Your task to perform on an android device: turn on priority inbox in the gmail app Image 0: 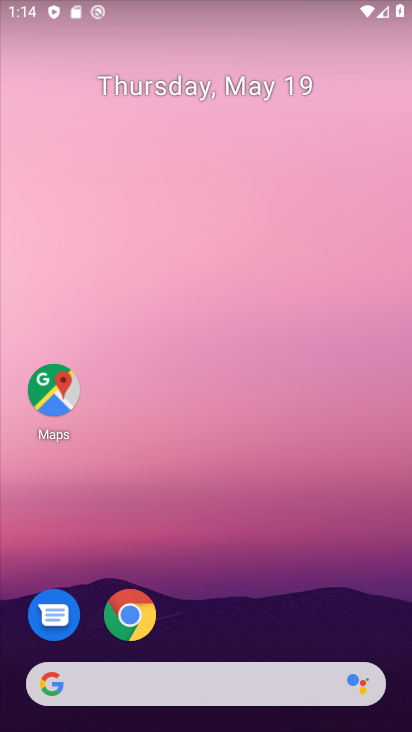
Step 0: drag from (287, 562) to (303, 60)
Your task to perform on an android device: turn on priority inbox in the gmail app Image 1: 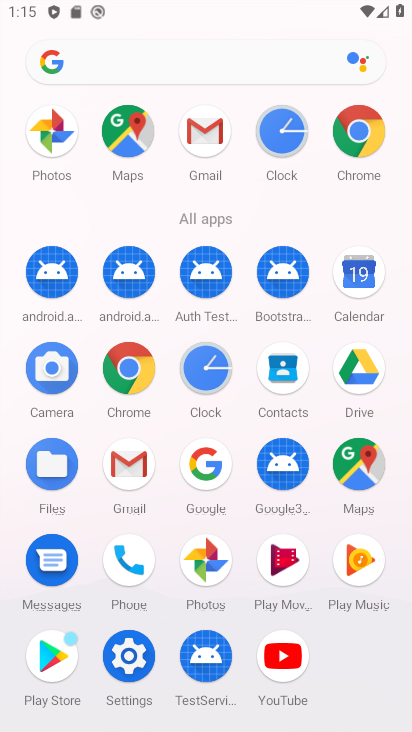
Step 1: click (209, 131)
Your task to perform on an android device: turn on priority inbox in the gmail app Image 2: 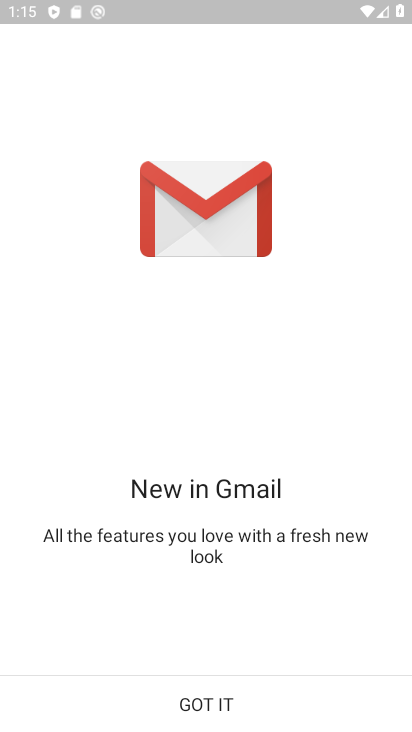
Step 2: click (246, 714)
Your task to perform on an android device: turn on priority inbox in the gmail app Image 3: 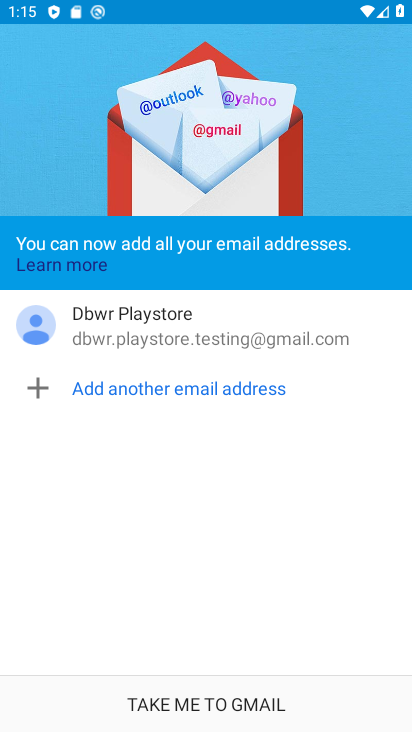
Step 3: click (222, 695)
Your task to perform on an android device: turn on priority inbox in the gmail app Image 4: 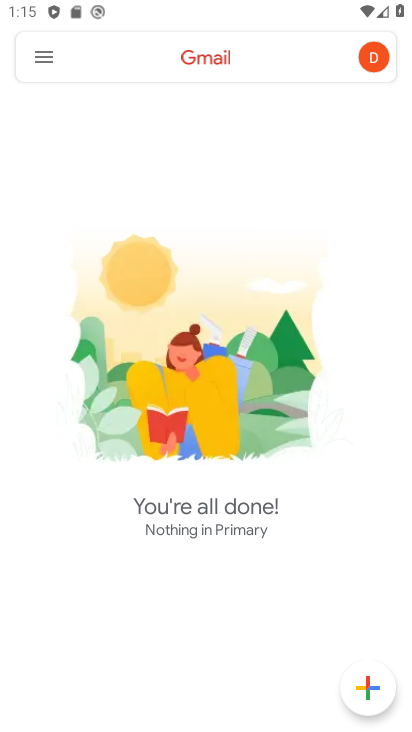
Step 4: click (54, 47)
Your task to perform on an android device: turn on priority inbox in the gmail app Image 5: 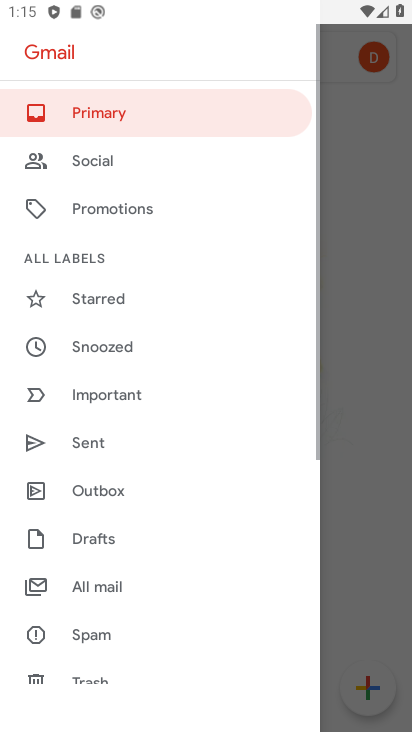
Step 5: drag from (143, 606) to (286, 137)
Your task to perform on an android device: turn on priority inbox in the gmail app Image 6: 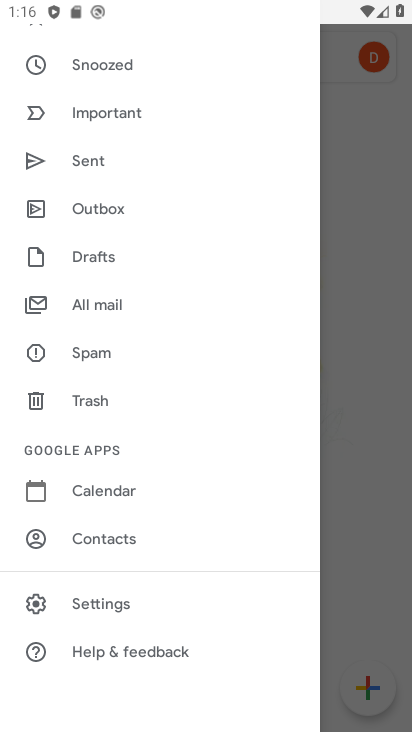
Step 6: click (95, 596)
Your task to perform on an android device: turn on priority inbox in the gmail app Image 7: 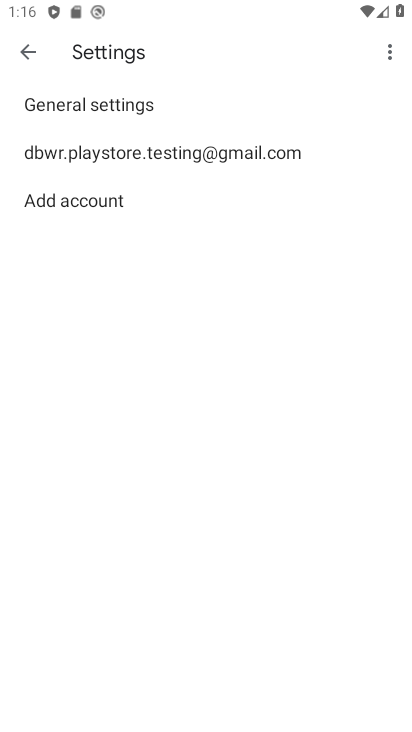
Step 7: click (228, 164)
Your task to perform on an android device: turn on priority inbox in the gmail app Image 8: 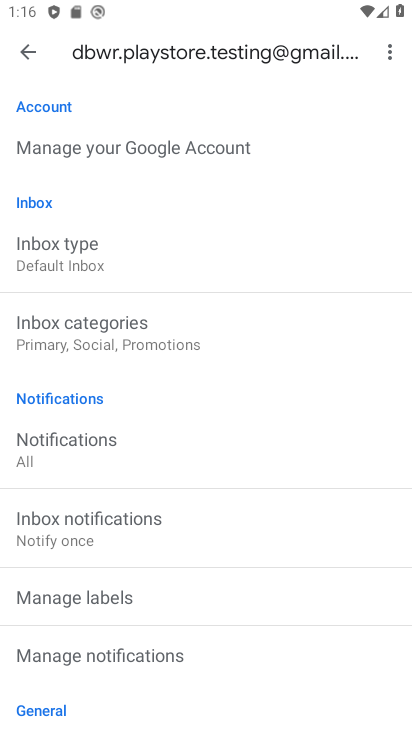
Step 8: click (77, 260)
Your task to perform on an android device: turn on priority inbox in the gmail app Image 9: 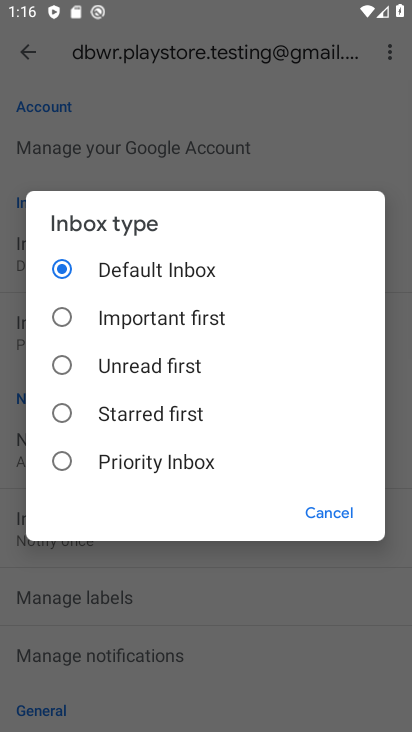
Step 9: task complete